Your task to perform on an android device: turn on the 24-hour format for clock Image 0: 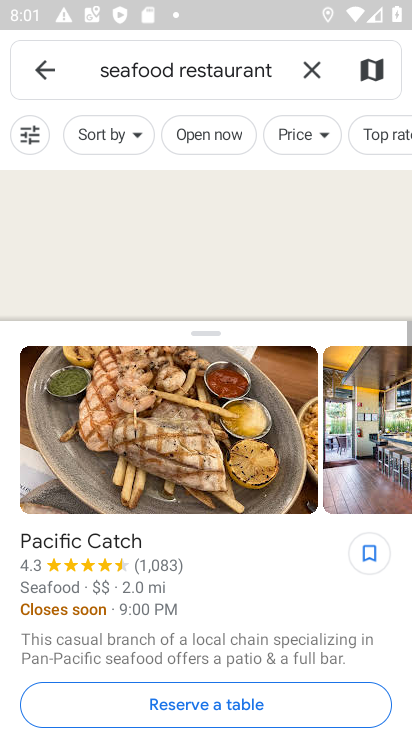
Step 0: press home button
Your task to perform on an android device: turn on the 24-hour format for clock Image 1: 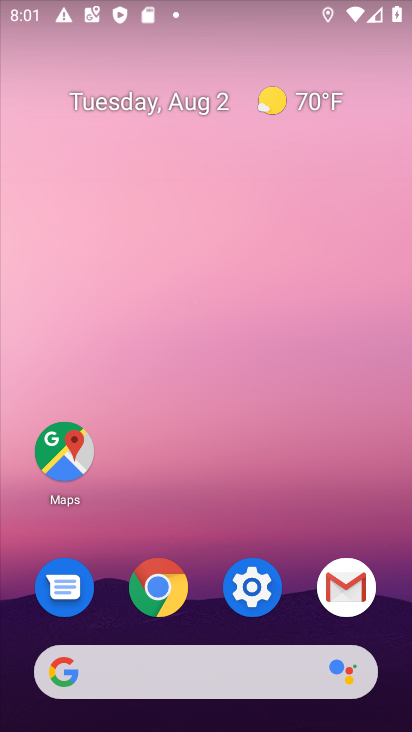
Step 1: drag from (302, 694) to (225, 208)
Your task to perform on an android device: turn on the 24-hour format for clock Image 2: 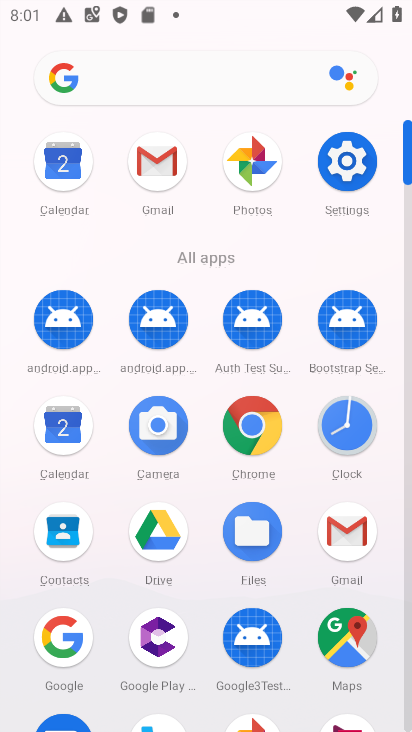
Step 2: click (350, 420)
Your task to perform on an android device: turn on the 24-hour format for clock Image 3: 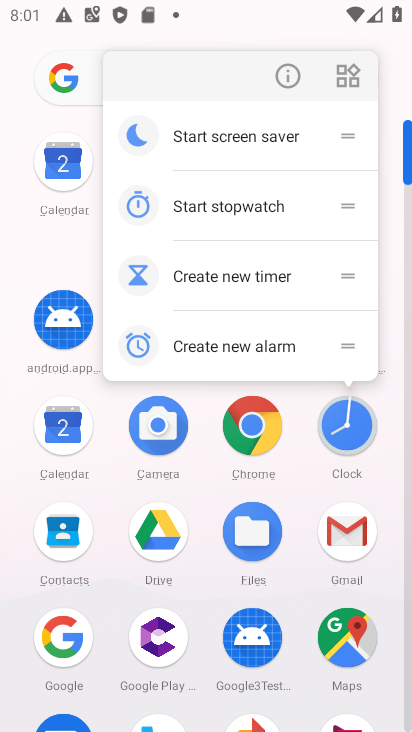
Step 3: click (345, 418)
Your task to perform on an android device: turn on the 24-hour format for clock Image 4: 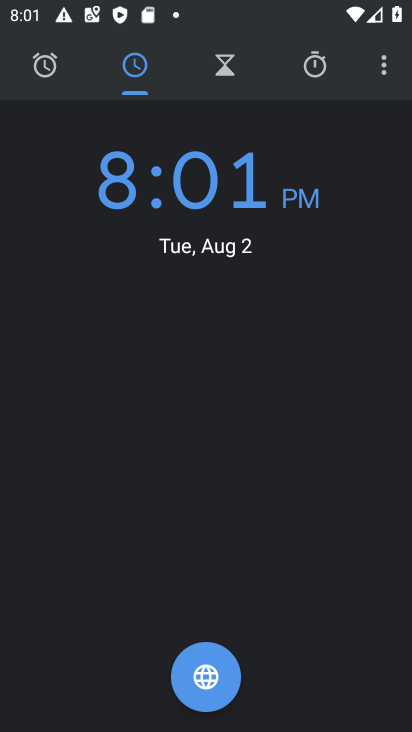
Step 4: click (372, 66)
Your task to perform on an android device: turn on the 24-hour format for clock Image 5: 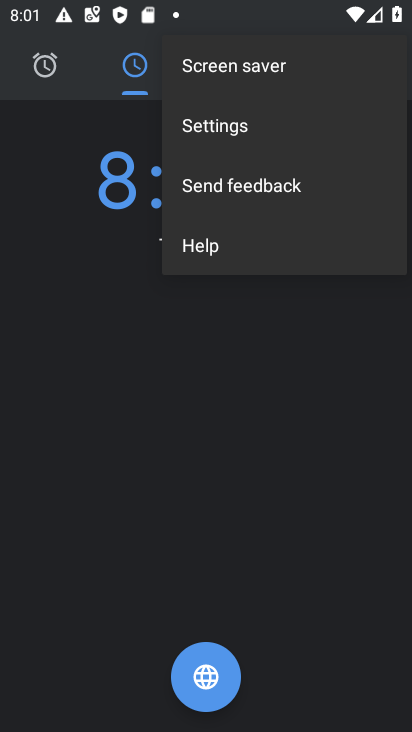
Step 5: click (288, 125)
Your task to perform on an android device: turn on the 24-hour format for clock Image 6: 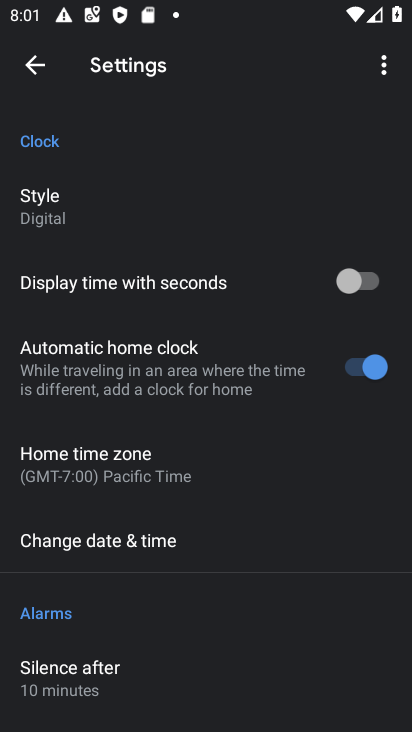
Step 6: click (114, 537)
Your task to perform on an android device: turn on the 24-hour format for clock Image 7: 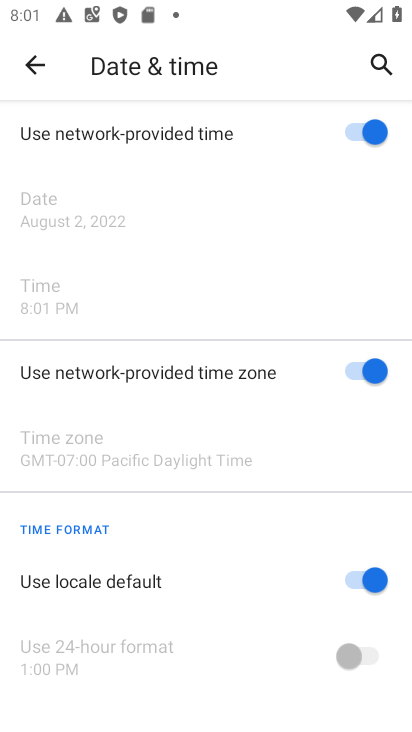
Step 7: click (351, 582)
Your task to perform on an android device: turn on the 24-hour format for clock Image 8: 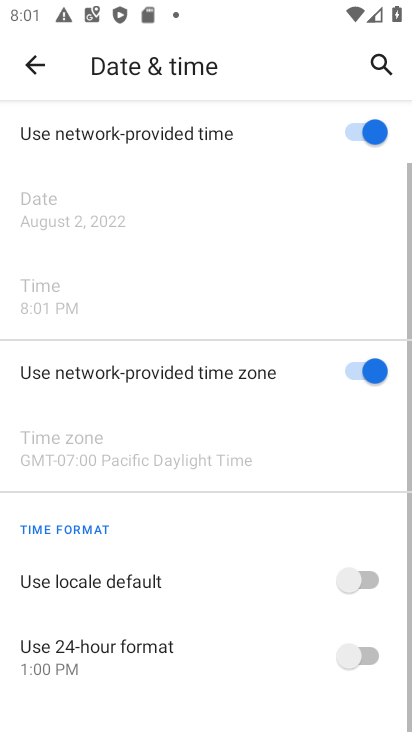
Step 8: click (366, 658)
Your task to perform on an android device: turn on the 24-hour format for clock Image 9: 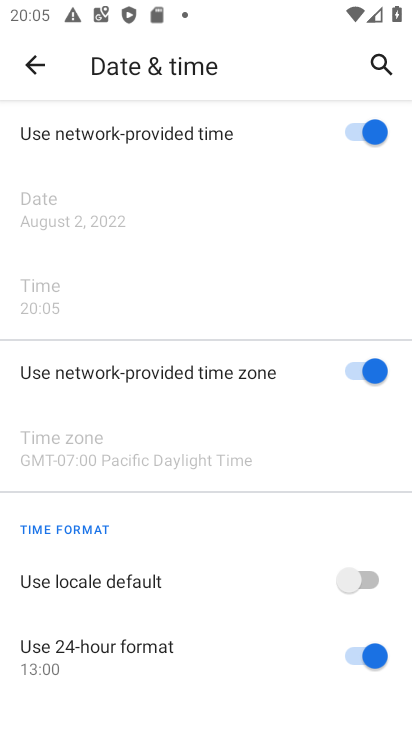
Step 9: task complete